Your task to perform on an android device: Open the phone app and click the voicemail tab. Image 0: 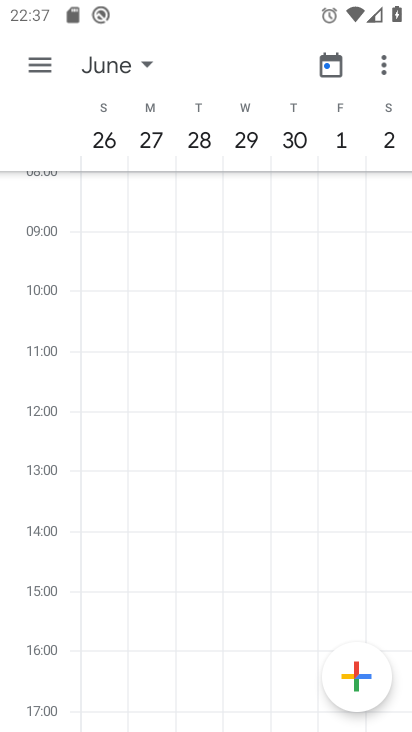
Step 0: press home button
Your task to perform on an android device: Open the phone app and click the voicemail tab. Image 1: 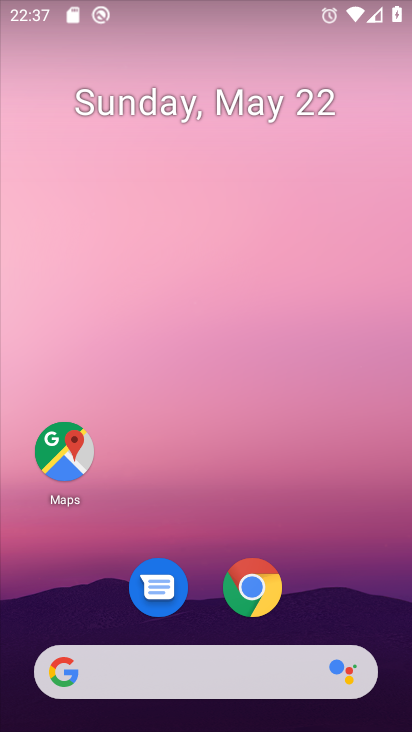
Step 1: drag from (193, 516) to (257, 43)
Your task to perform on an android device: Open the phone app and click the voicemail tab. Image 2: 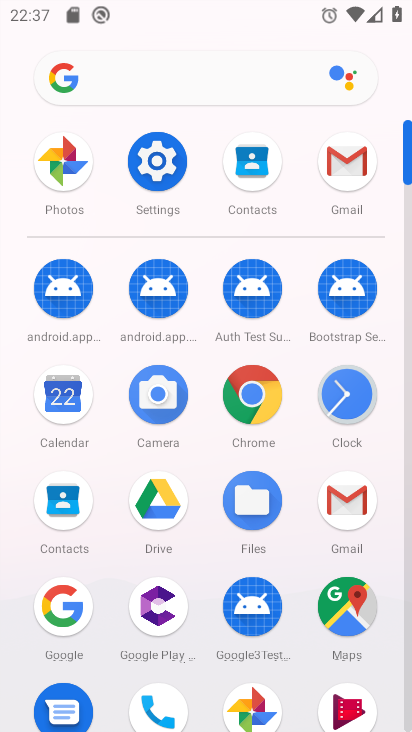
Step 2: drag from (197, 455) to (236, 112)
Your task to perform on an android device: Open the phone app and click the voicemail tab. Image 3: 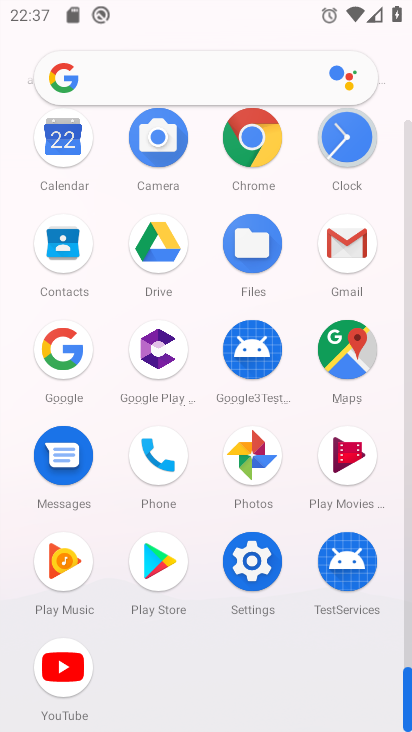
Step 3: click (164, 440)
Your task to perform on an android device: Open the phone app and click the voicemail tab. Image 4: 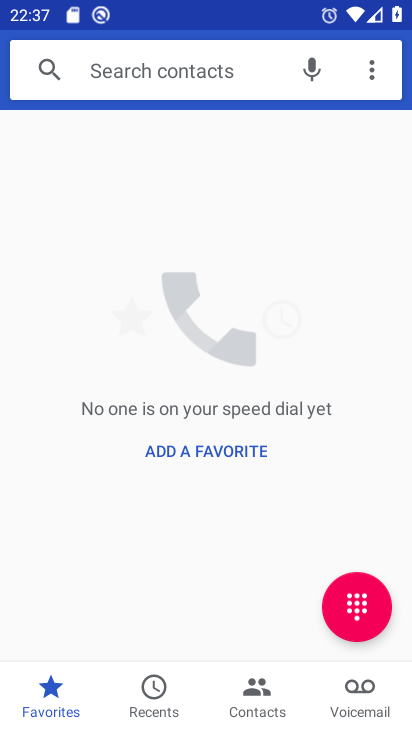
Step 4: click (360, 694)
Your task to perform on an android device: Open the phone app and click the voicemail tab. Image 5: 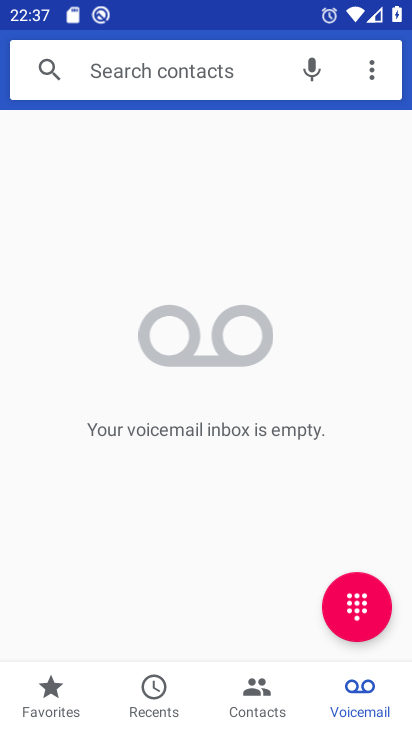
Step 5: task complete